Your task to perform on an android device: Go to ESPN.com Image 0: 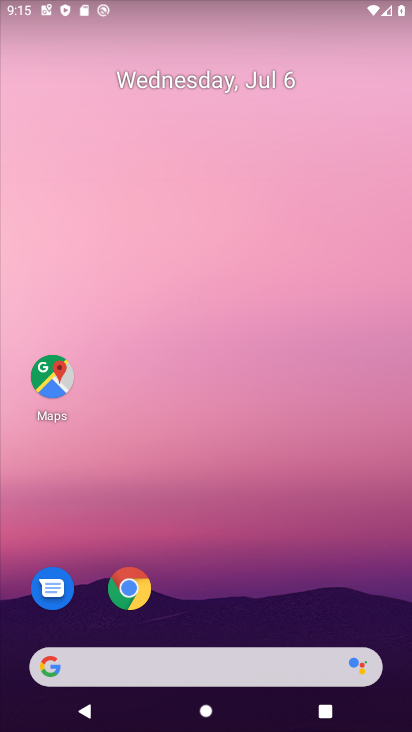
Step 0: click (135, 589)
Your task to perform on an android device: Go to ESPN.com Image 1: 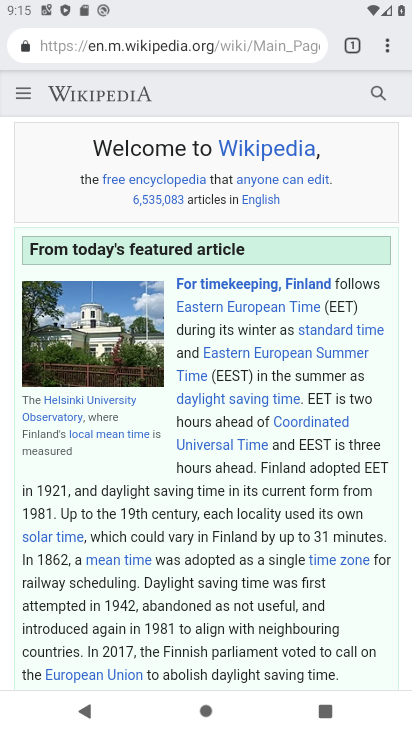
Step 1: click (385, 44)
Your task to perform on an android device: Go to ESPN.com Image 2: 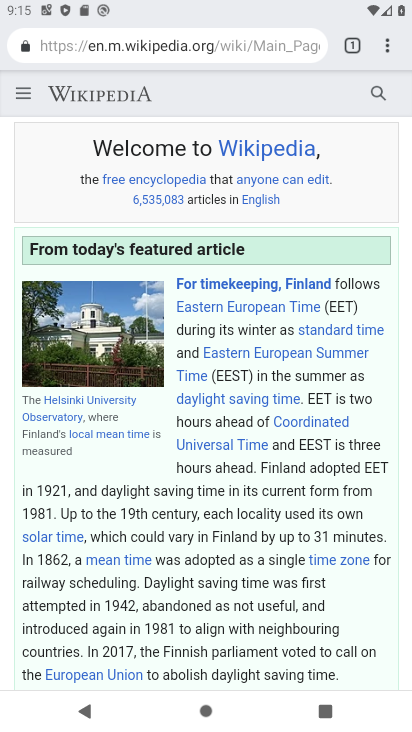
Step 2: click (381, 51)
Your task to perform on an android device: Go to ESPN.com Image 3: 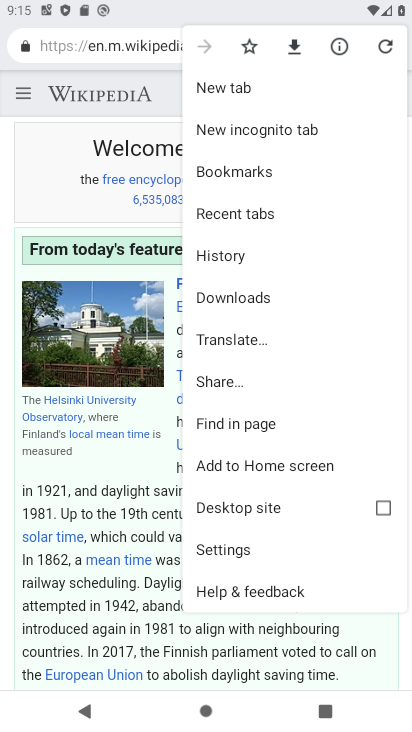
Step 3: click (261, 86)
Your task to perform on an android device: Go to ESPN.com Image 4: 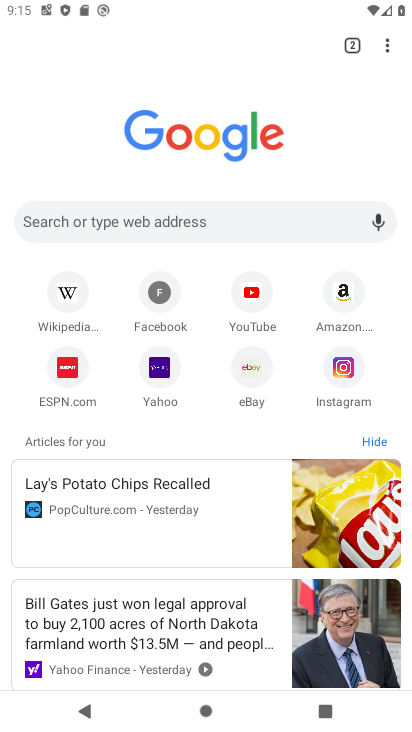
Step 4: click (66, 366)
Your task to perform on an android device: Go to ESPN.com Image 5: 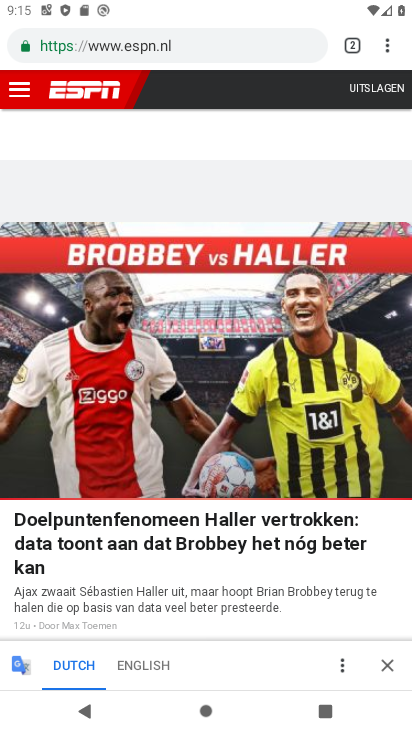
Step 5: task complete